Your task to perform on an android device: Open location settings Image 0: 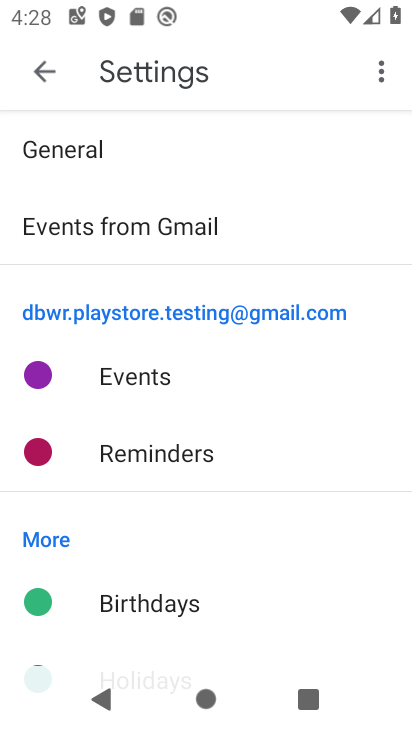
Step 0: press home button
Your task to perform on an android device: Open location settings Image 1: 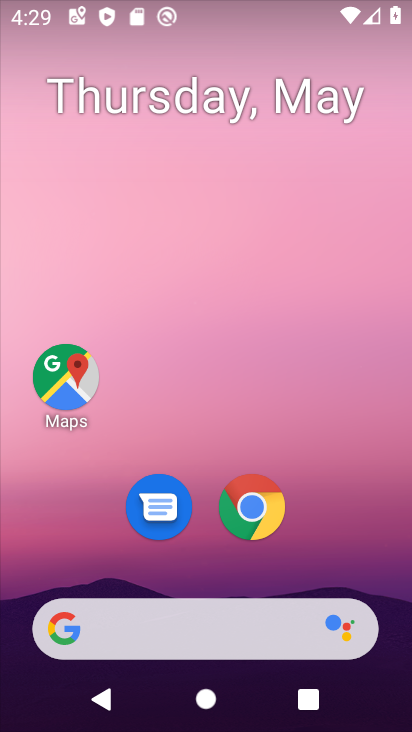
Step 1: drag from (209, 582) to (218, 63)
Your task to perform on an android device: Open location settings Image 2: 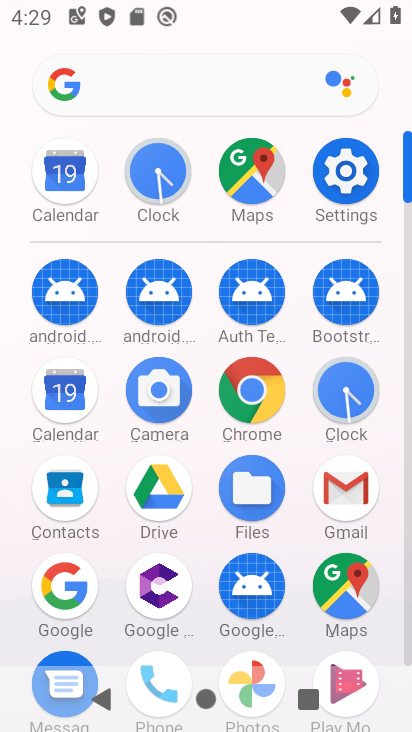
Step 2: click (353, 177)
Your task to perform on an android device: Open location settings Image 3: 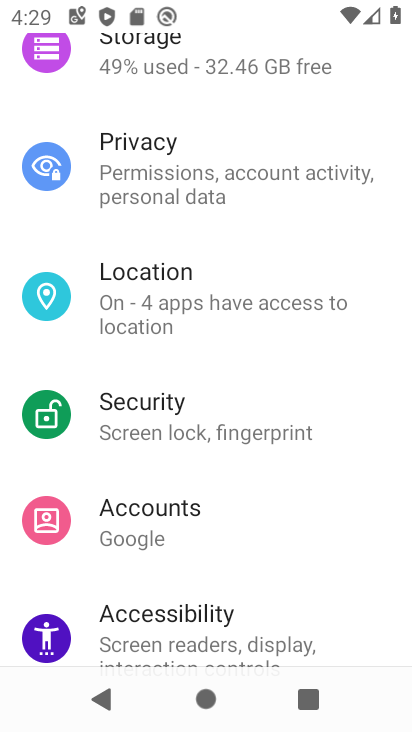
Step 3: click (169, 292)
Your task to perform on an android device: Open location settings Image 4: 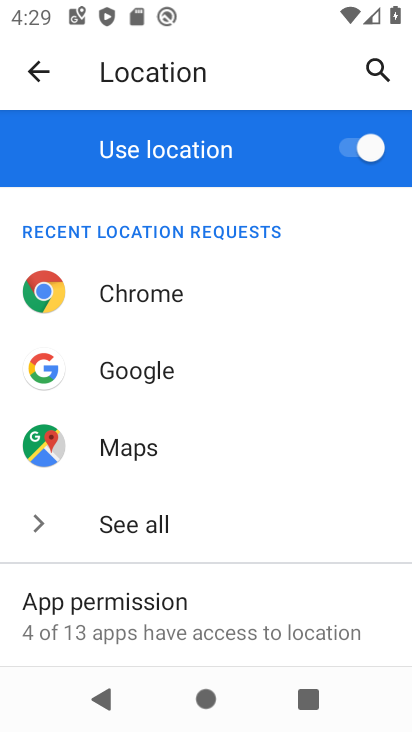
Step 4: task complete